Your task to perform on an android device: Turn on the flashlight Image 0: 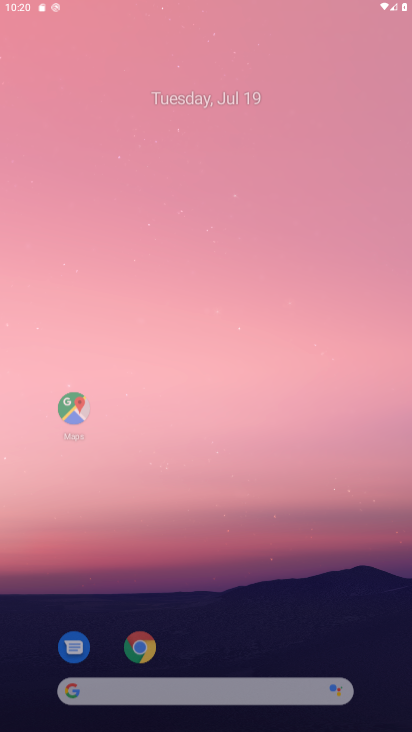
Step 0: drag from (327, 620) to (249, 519)
Your task to perform on an android device: Turn on the flashlight Image 1: 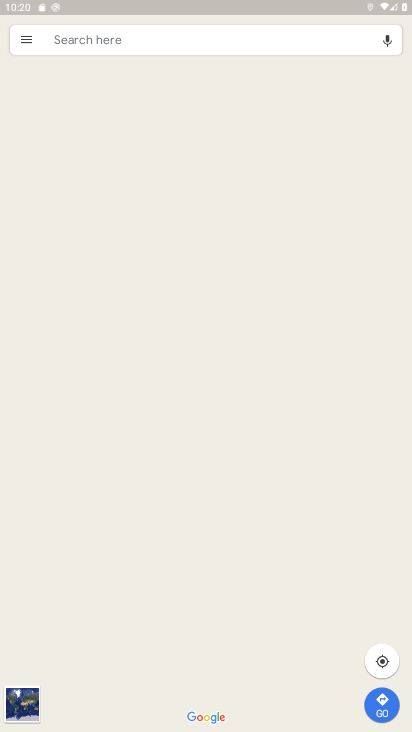
Step 1: press home button
Your task to perform on an android device: Turn on the flashlight Image 2: 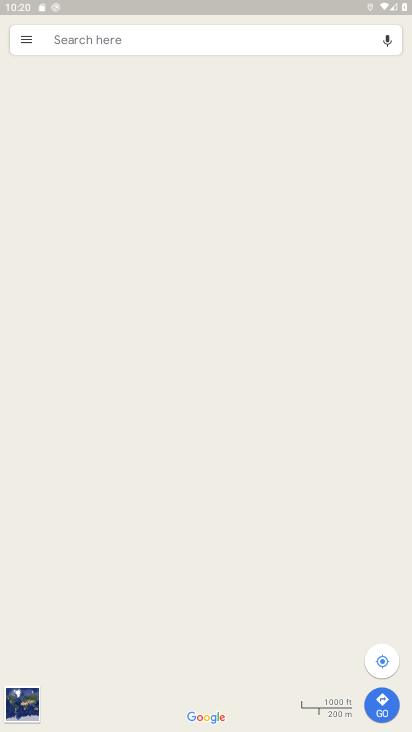
Step 2: press home button
Your task to perform on an android device: Turn on the flashlight Image 3: 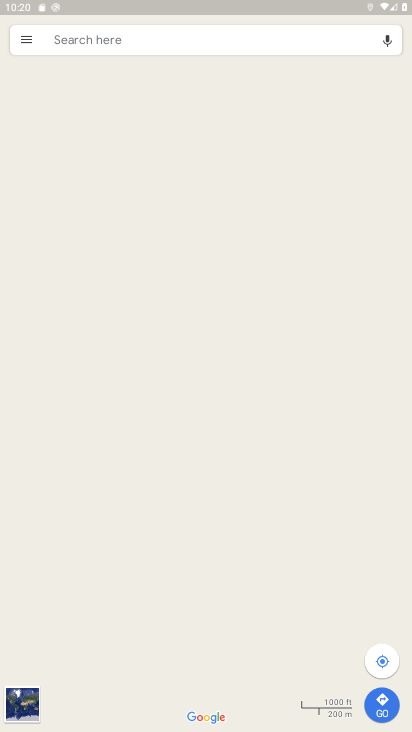
Step 3: click (302, 288)
Your task to perform on an android device: Turn on the flashlight Image 4: 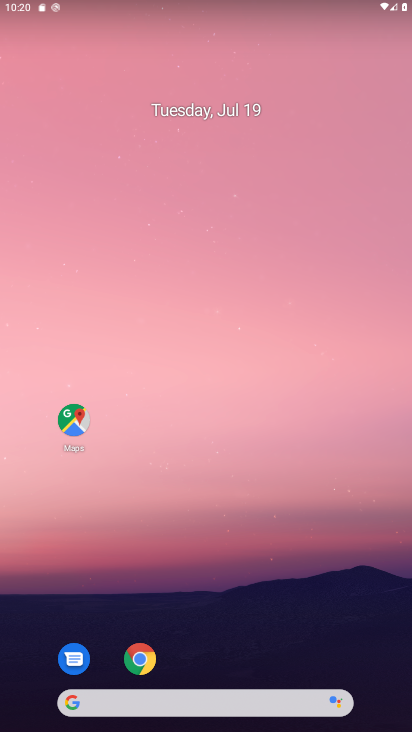
Step 4: drag from (157, 464) to (192, 260)
Your task to perform on an android device: Turn on the flashlight Image 5: 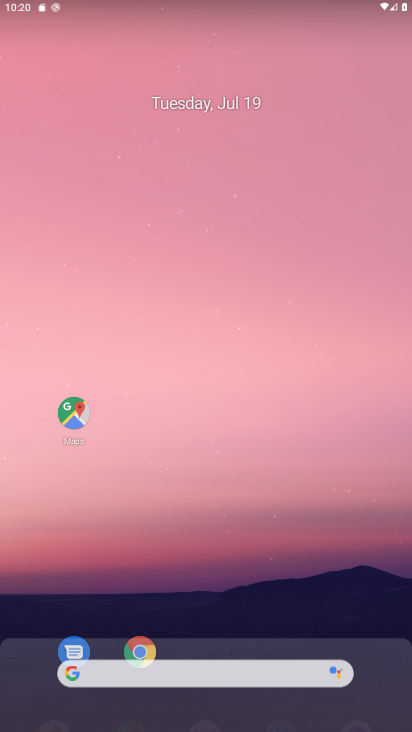
Step 5: drag from (340, 211) to (370, 93)
Your task to perform on an android device: Turn on the flashlight Image 6: 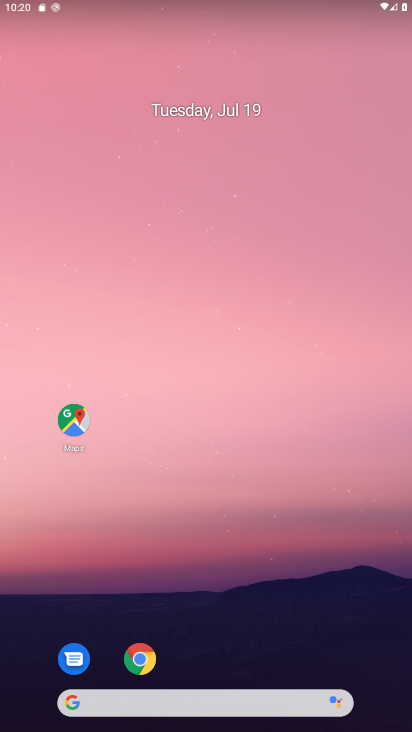
Step 6: drag from (220, 477) to (330, 8)
Your task to perform on an android device: Turn on the flashlight Image 7: 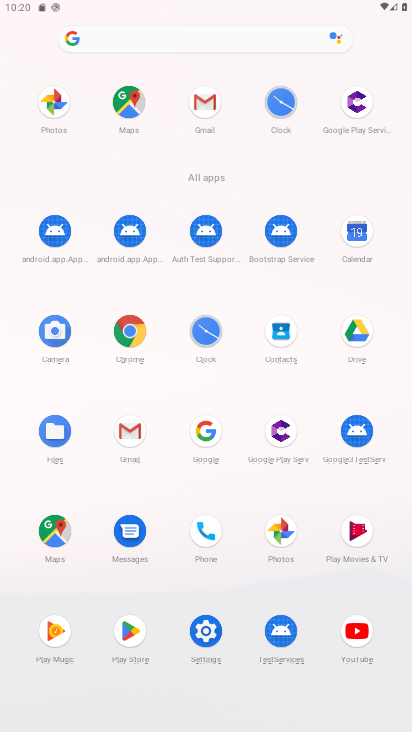
Step 7: click (187, 41)
Your task to perform on an android device: Turn on the flashlight Image 8: 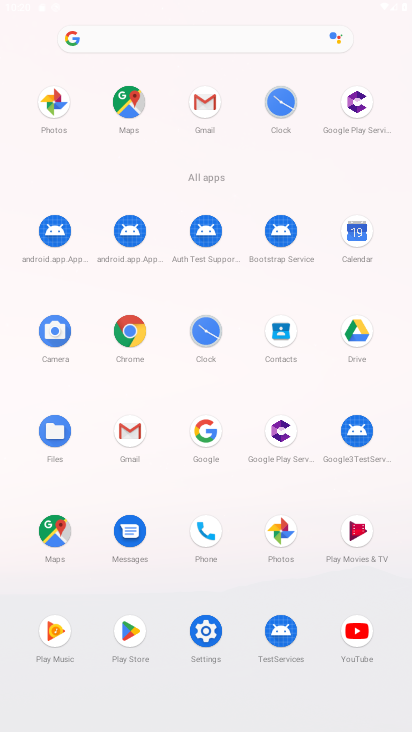
Step 8: click (200, 635)
Your task to perform on an android device: Turn on the flashlight Image 9: 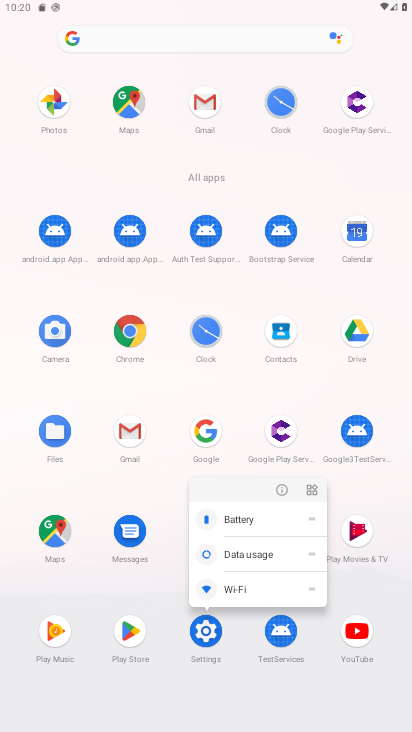
Step 9: click (279, 486)
Your task to perform on an android device: Turn on the flashlight Image 10: 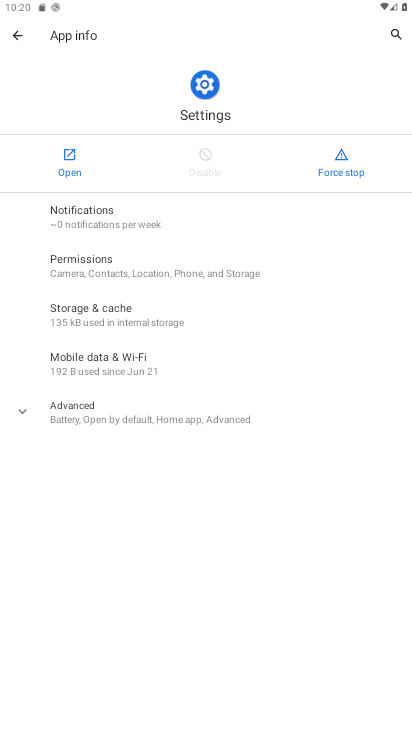
Step 10: click (65, 156)
Your task to perform on an android device: Turn on the flashlight Image 11: 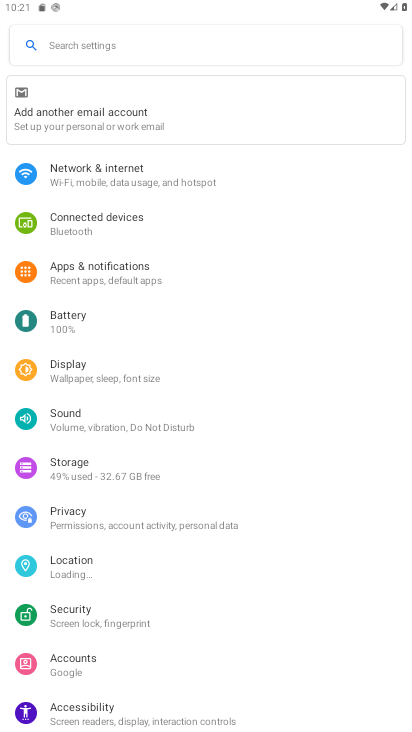
Step 11: click (128, 51)
Your task to perform on an android device: Turn on the flashlight Image 12: 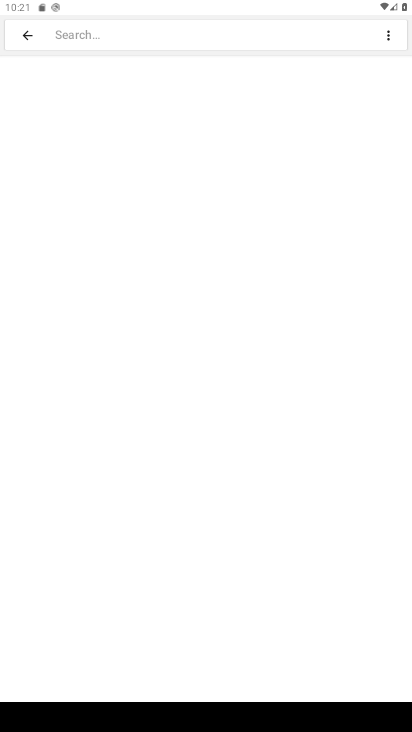
Step 12: type "flashlight"
Your task to perform on an android device: Turn on the flashlight Image 13: 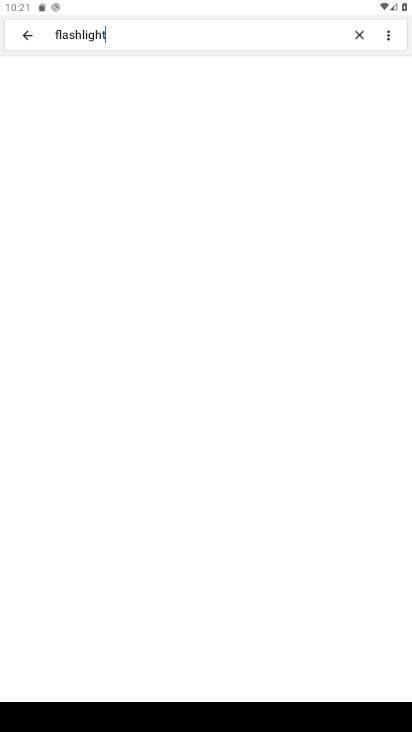
Step 13: type ""
Your task to perform on an android device: Turn on the flashlight Image 14: 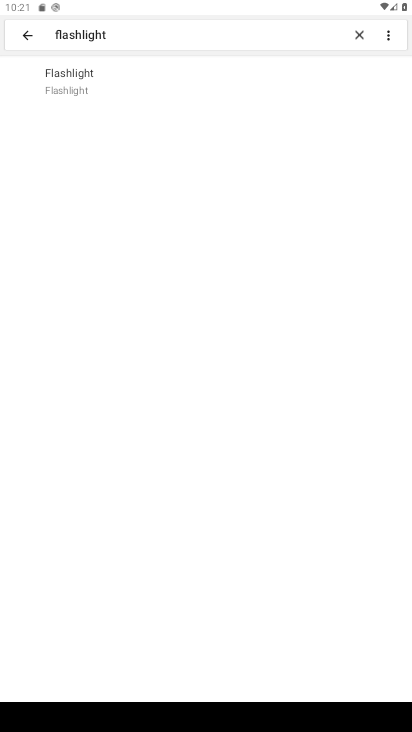
Step 14: click (121, 72)
Your task to perform on an android device: Turn on the flashlight Image 15: 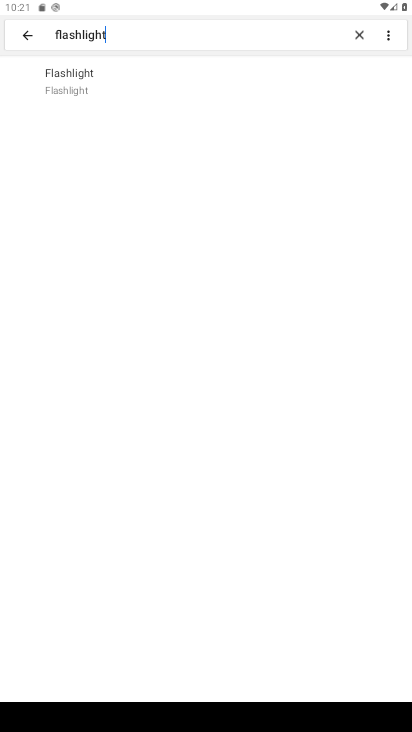
Step 15: task complete